Your task to perform on an android device: open chrome privacy settings Image 0: 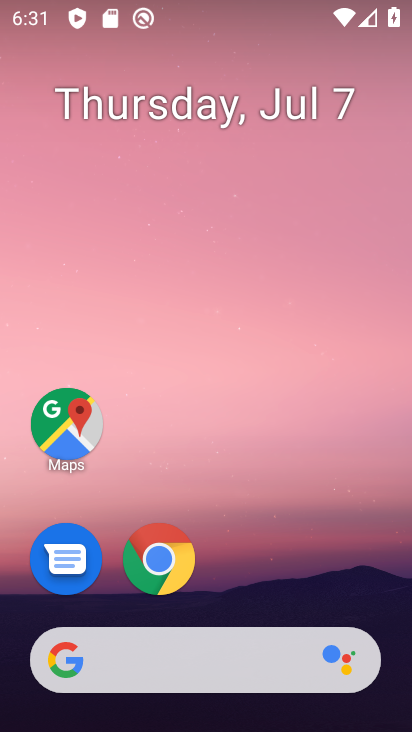
Step 0: drag from (297, 390) to (319, 185)
Your task to perform on an android device: open chrome privacy settings Image 1: 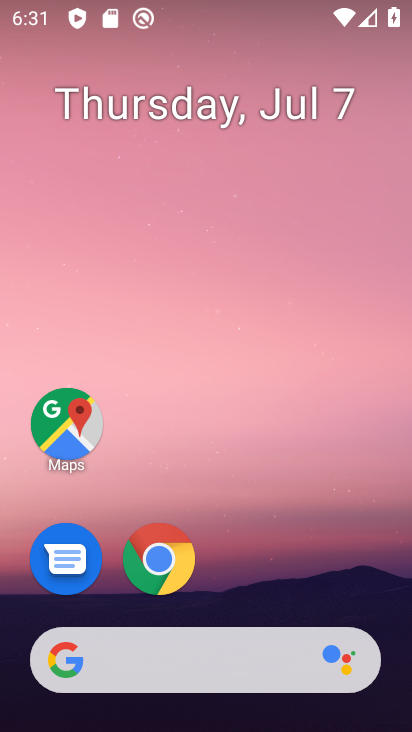
Step 1: click (172, 561)
Your task to perform on an android device: open chrome privacy settings Image 2: 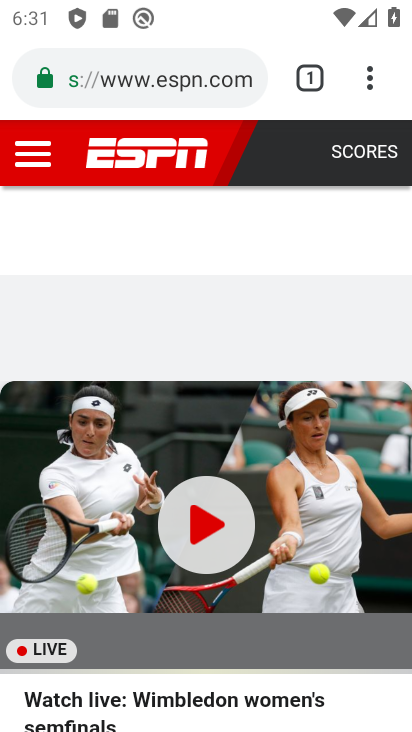
Step 2: click (369, 92)
Your task to perform on an android device: open chrome privacy settings Image 3: 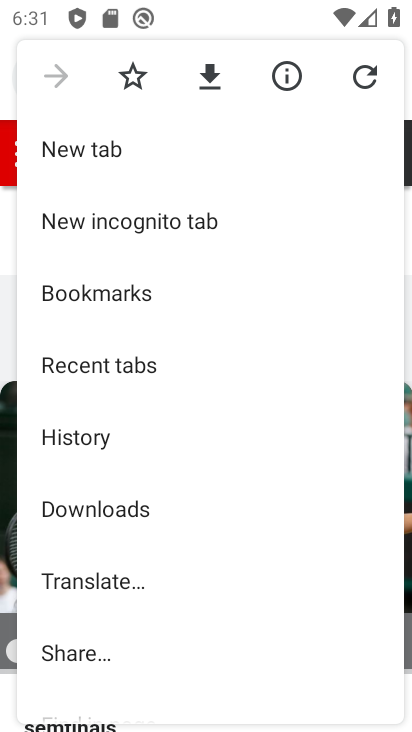
Step 3: drag from (156, 655) to (161, 151)
Your task to perform on an android device: open chrome privacy settings Image 4: 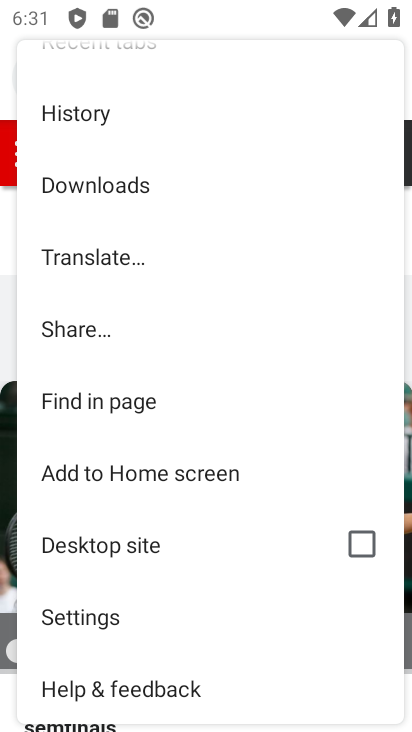
Step 4: click (77, 616)
Your task to perform on an android device: open chrome privacy settings Image 5: 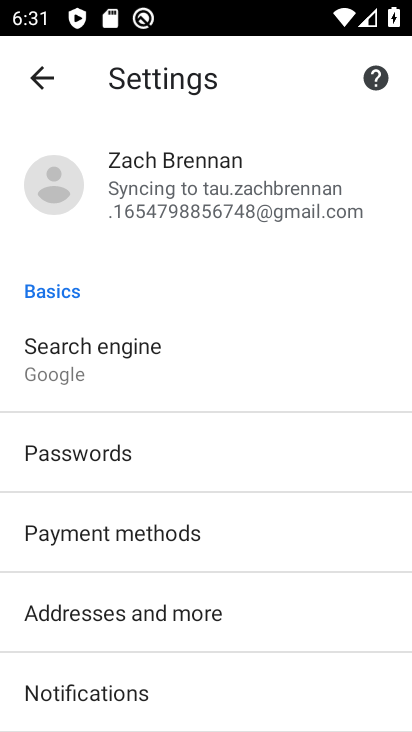
Step 5: drag from (219, 584) to (261, 283)
Your task to perform on an android device: open chrome privacy settings Image 6: 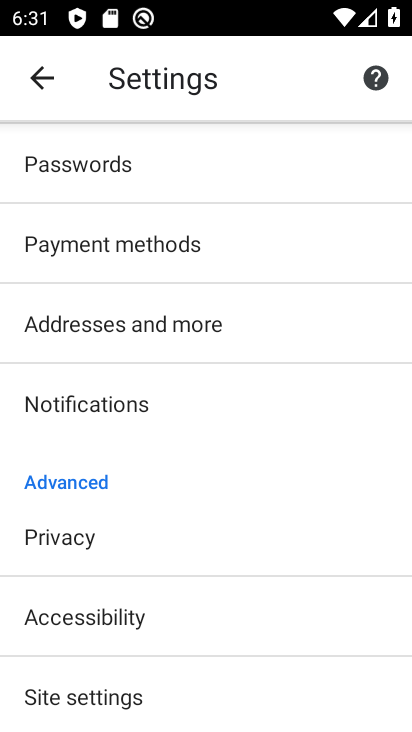
Step 6: click (113, 551)
Your task to perform on an android device: open chrome privacy settings Image 7: 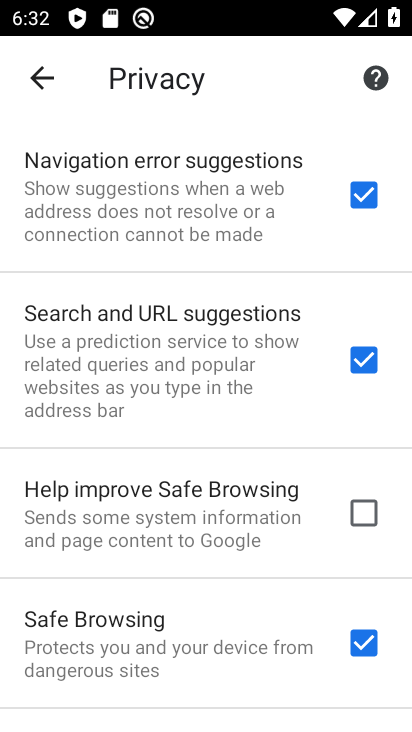
Step 7: task complete